Your task to perform on an android device: Search for "apple airpods pro" on costco.com, select the first entry, and add it to the cart. Image 0: 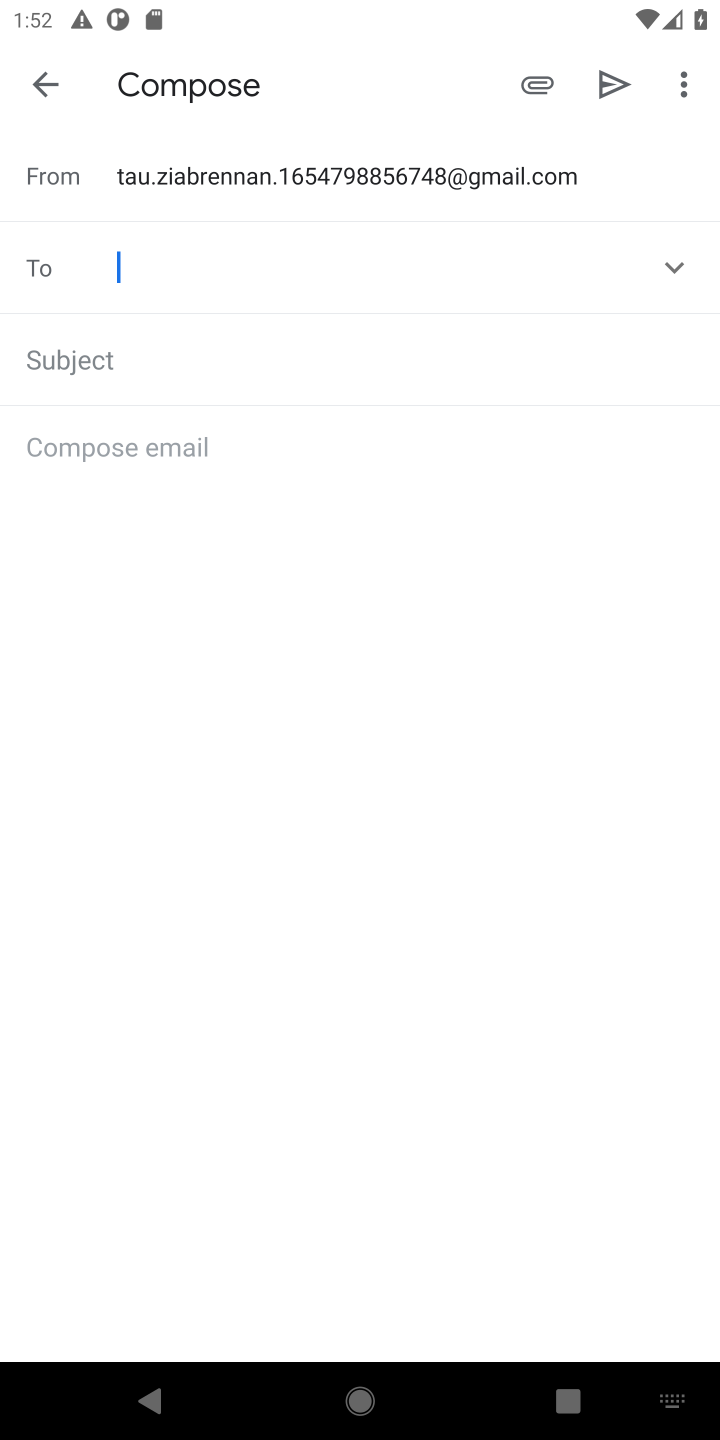
Step 0: press home button
Your task to perform on an android device: Search for "apple airpods pro" on costco.com, select the first entry, and add it to the cart. Image 1: 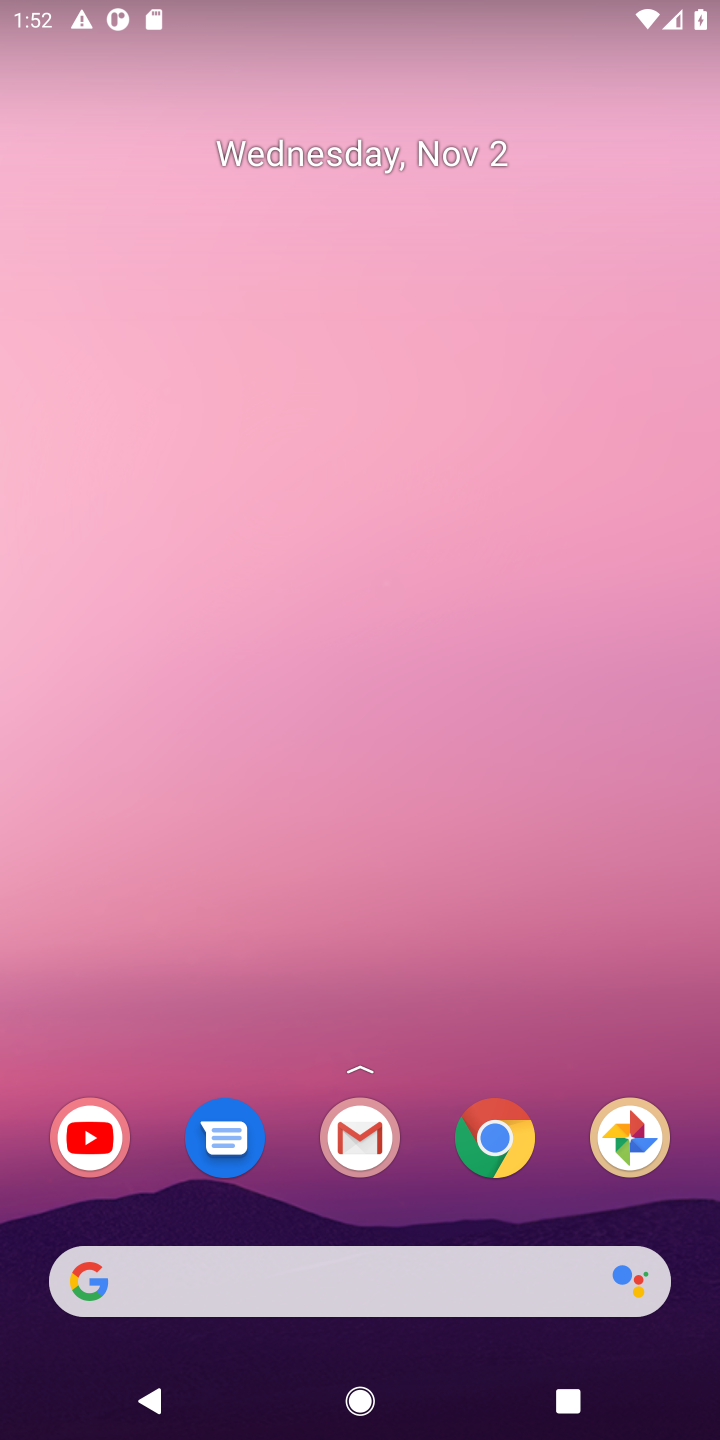
Step 1: click (222, 1274)
Your task to perform on an android device: Search for "apple airpods pro" on costco.com, select the first entry, and add it to the cart. Image 2: 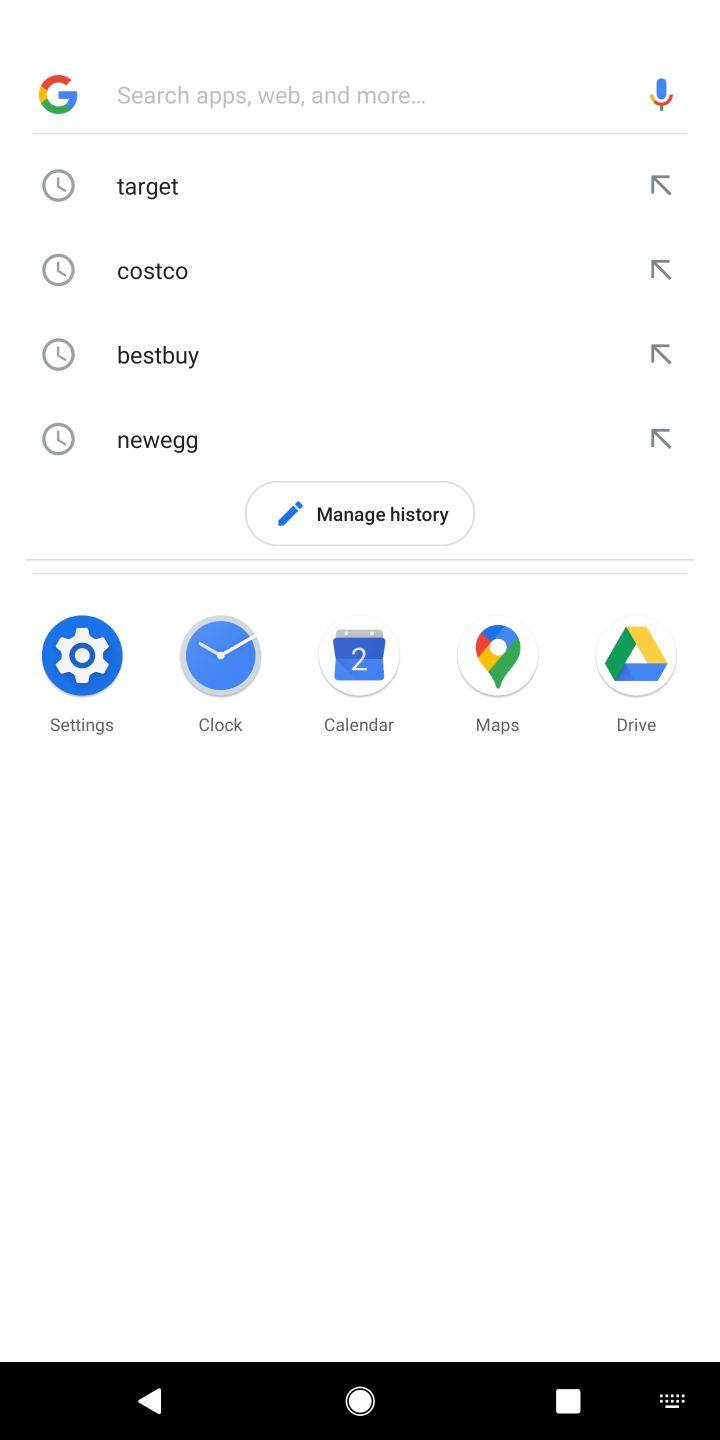
Step 2: type " costco.com"
Your task to perform on an android device: Search for "apple airpods pro" on costco.com, select the first entry, and add it to the cart. Image 3: 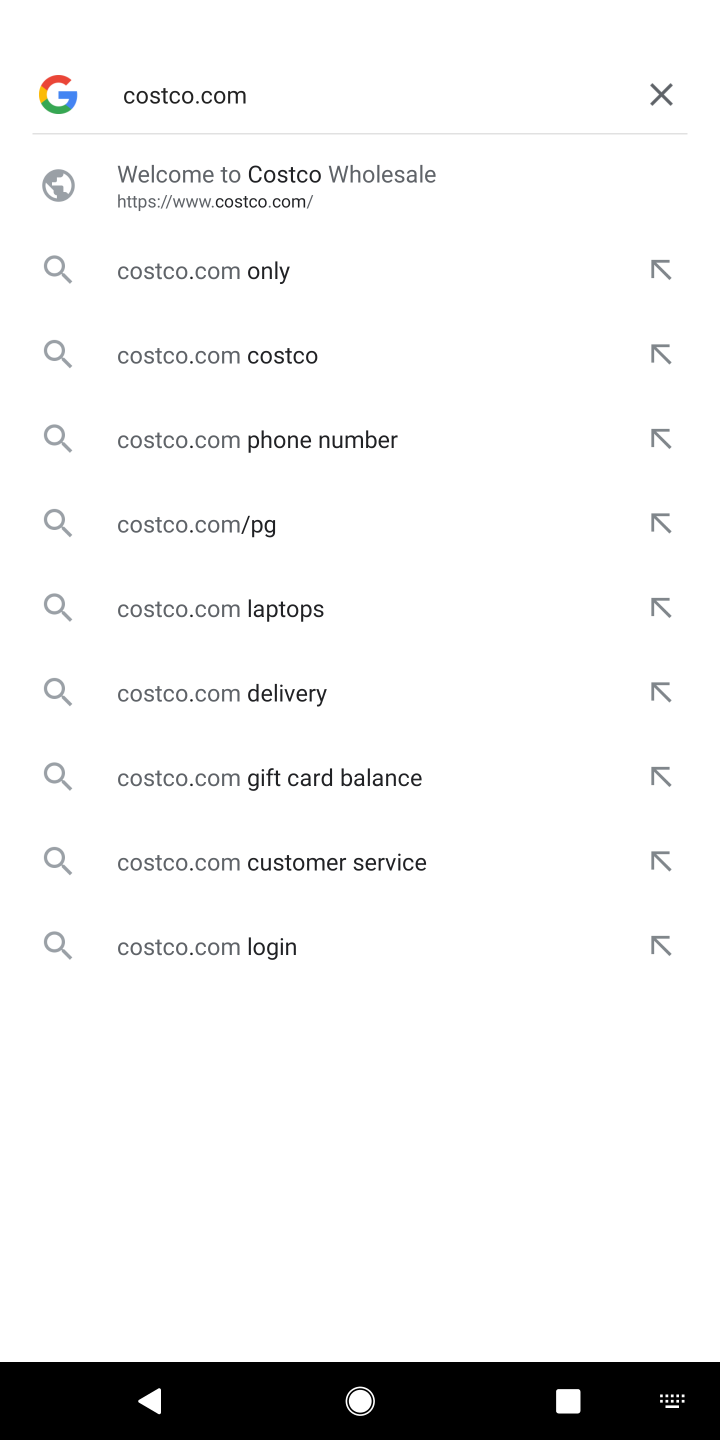
Step 3: press enter
Your task to perform on an android device: Search for "apple airpods pro" on costco.com, select the first entry, and add it to the cart. Image 4: 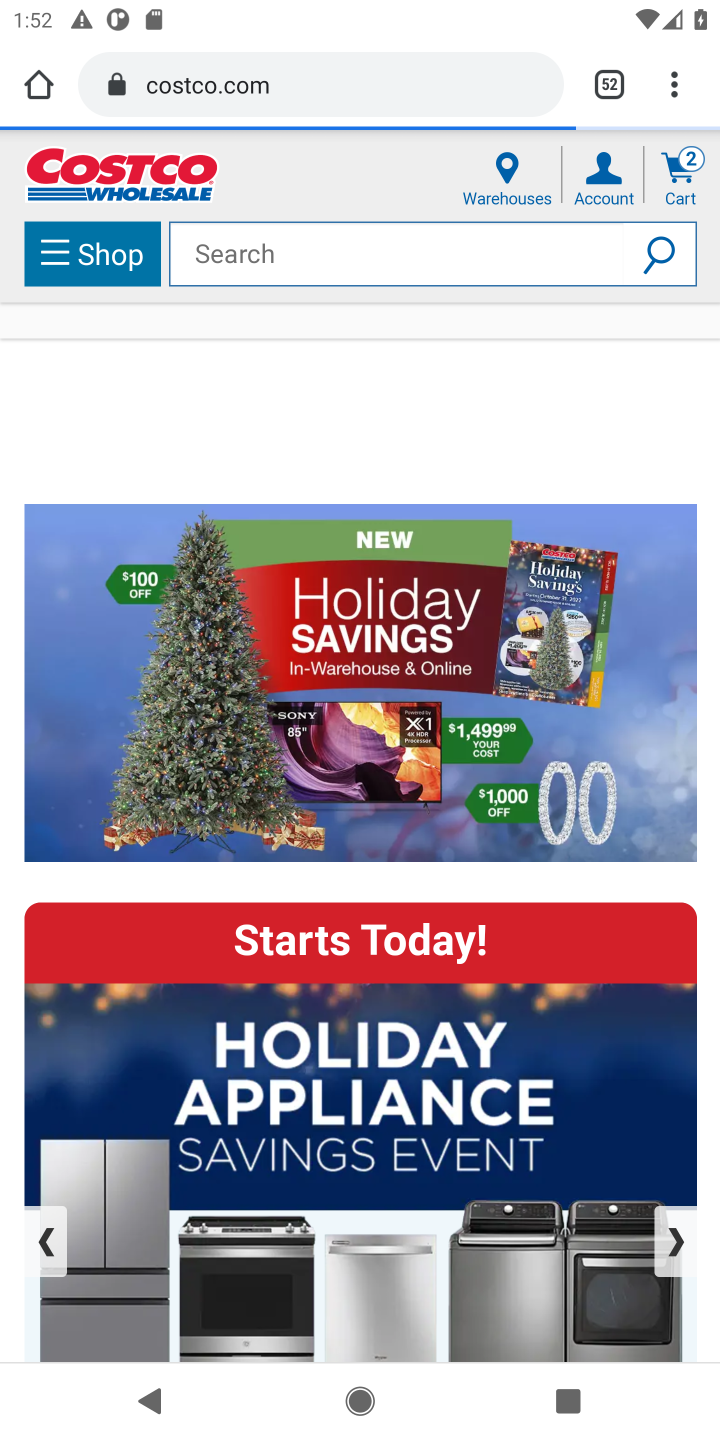
Step 4: click (272, 251)
Your task to perform on an android device: Search for "apple airpods pro" on costco.com, select the first entry, and add it to the cart. Image 5: 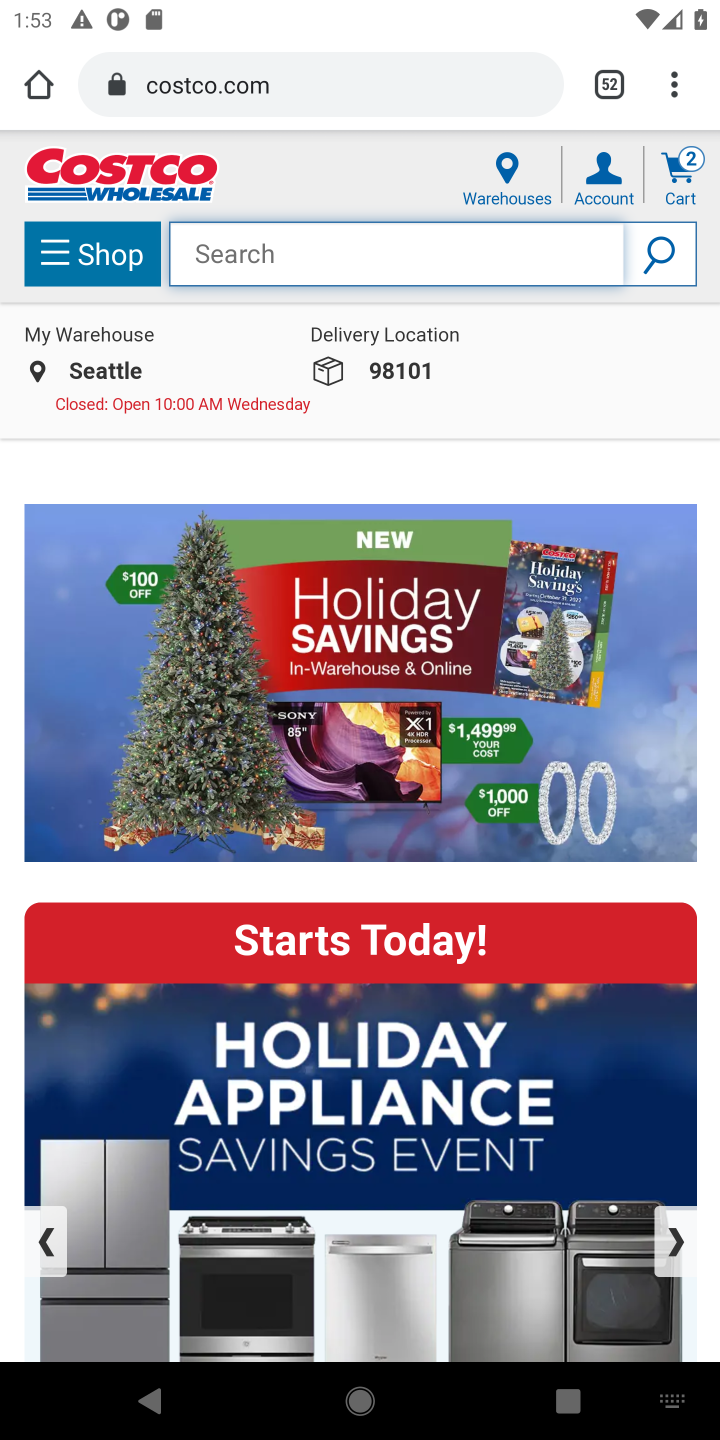
Step 5: press enter
Your task to perform on an android device: Search for "apple airpods pro" on costco.com, select the first entry, and add it to the cart. Image 6: 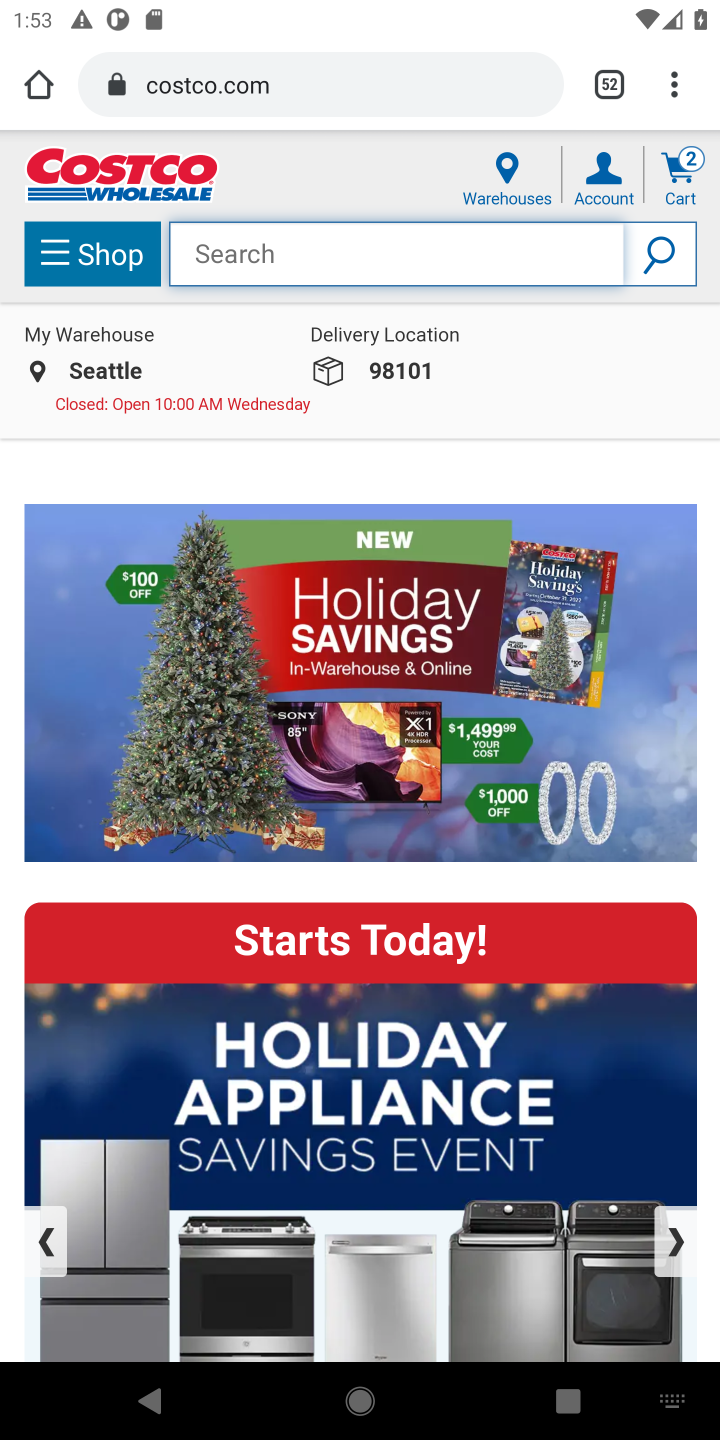
Step 6: type "apple airpods pro"
Your task to perform on an android device: Search for "apple airpods pro" on costco.com, select the first entry, and add it to the cart. Image 7: 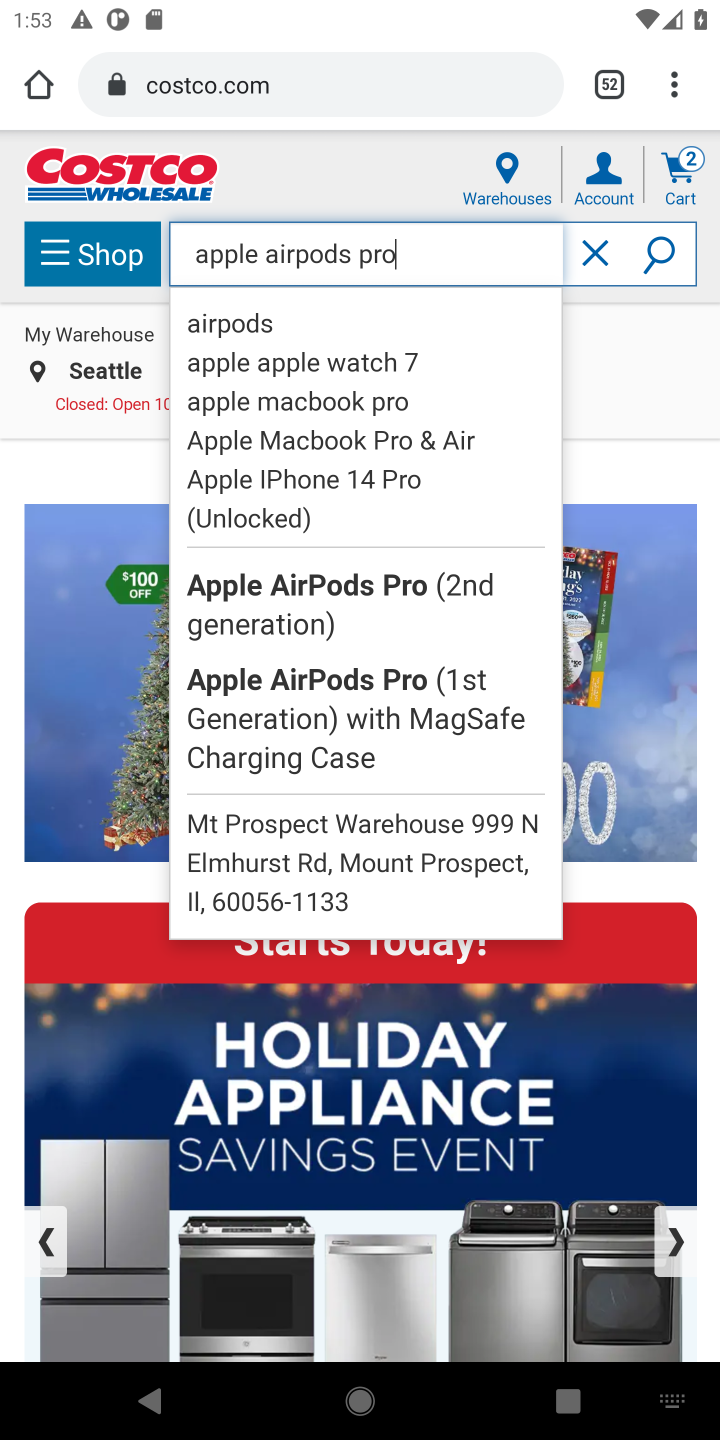
Step 7: click (671, 245)
Your task to perform on an android device: Search for "apple airpods pro" on costco.com, select the first entry, and add it to the cart. Image 8: 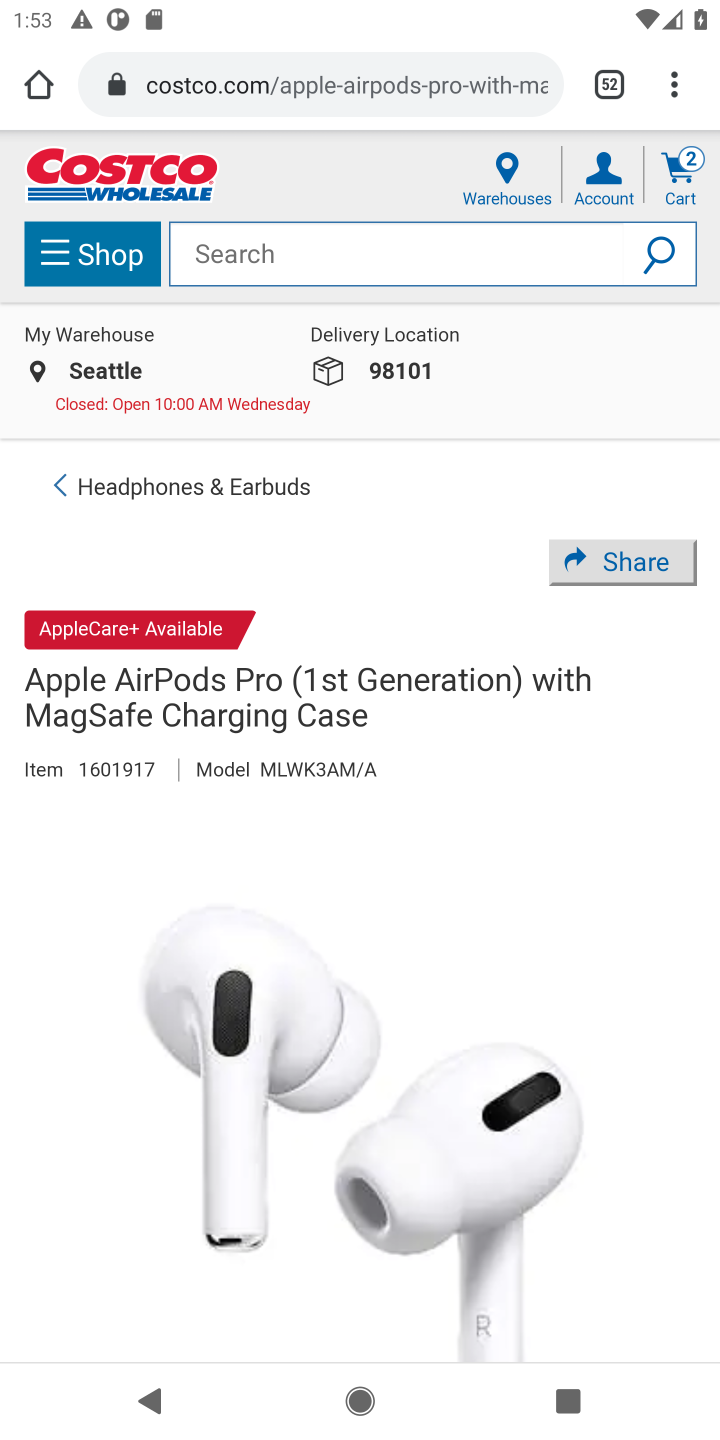
Step 8: drag from (428, 1086) to (405, 658)
Your task to perform on an android device: Search for "apple airpods pro" on costco.com, select the first entry, and add it to the cart. Image 9: 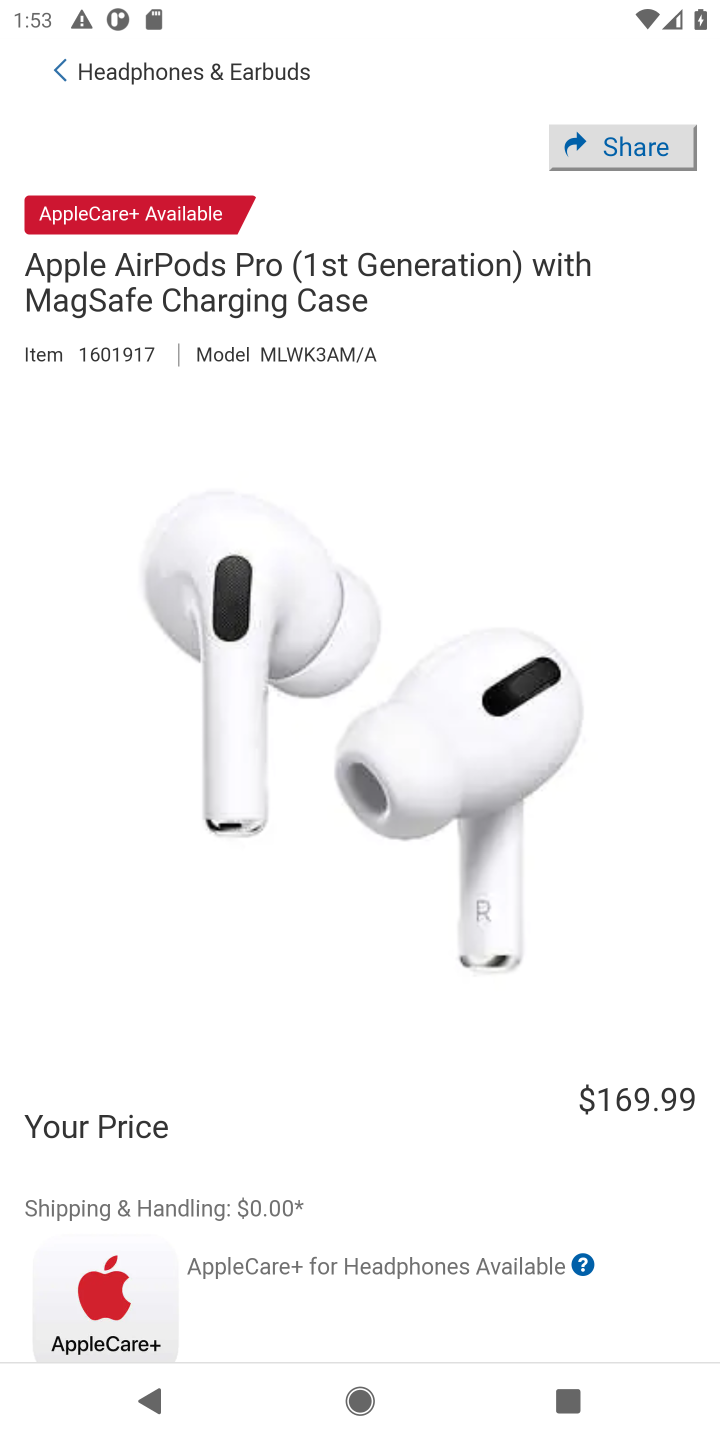
Step 9: drag from (402, 1053) to (400, 657)
Your task to perform on an android device: Search for "apple airpods pro" on costco.com, select the first entry, and add it to the cart. Image 10: 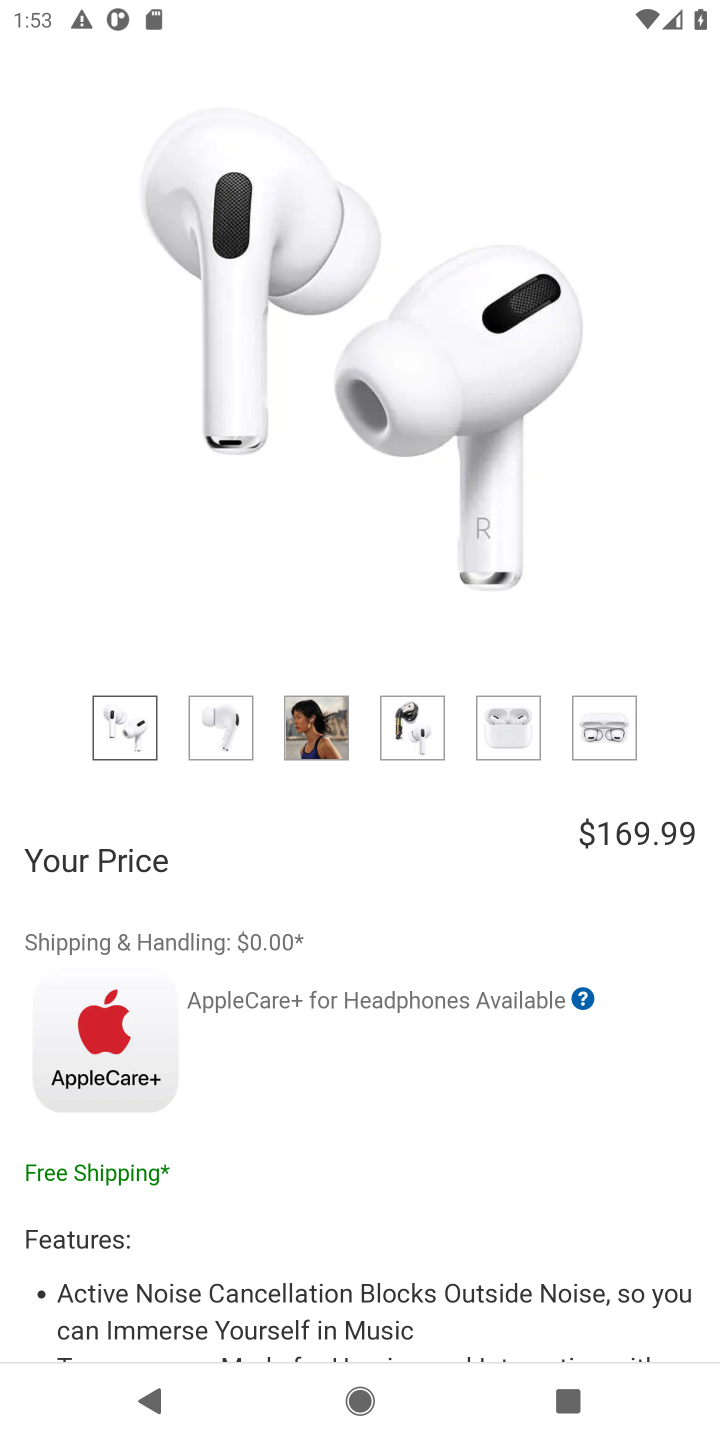
Step 10: drag from (440, 1126) to (468, 618)
Your task to perform on an android device: Search for "apple airpods pro" on costco.com, select the first entry, and add it to the cart. Image 11: 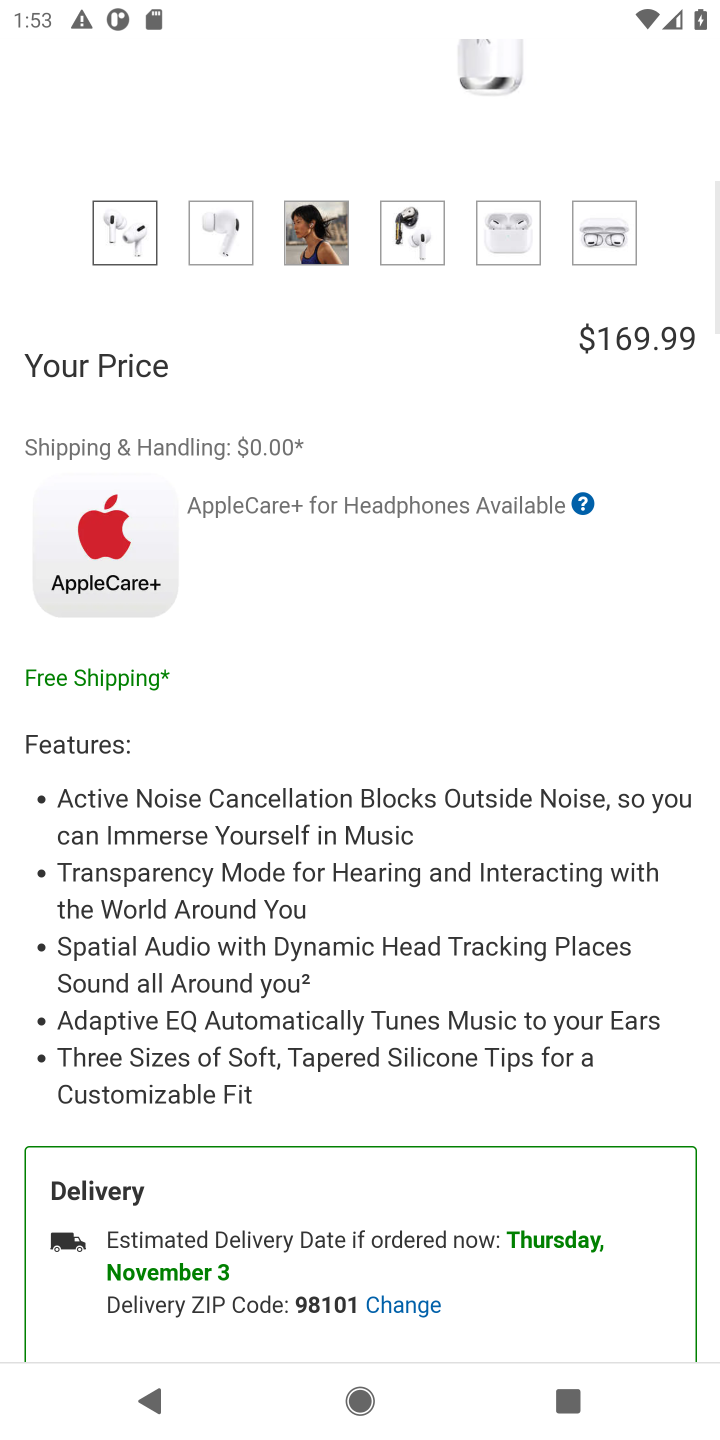
Step 11: drag from (422, 960) to (465, 510)
Your task to perform on an android device: Search for "apple airpods pro" on costco.com, select the first entry, and add it to the cart. Image 12: 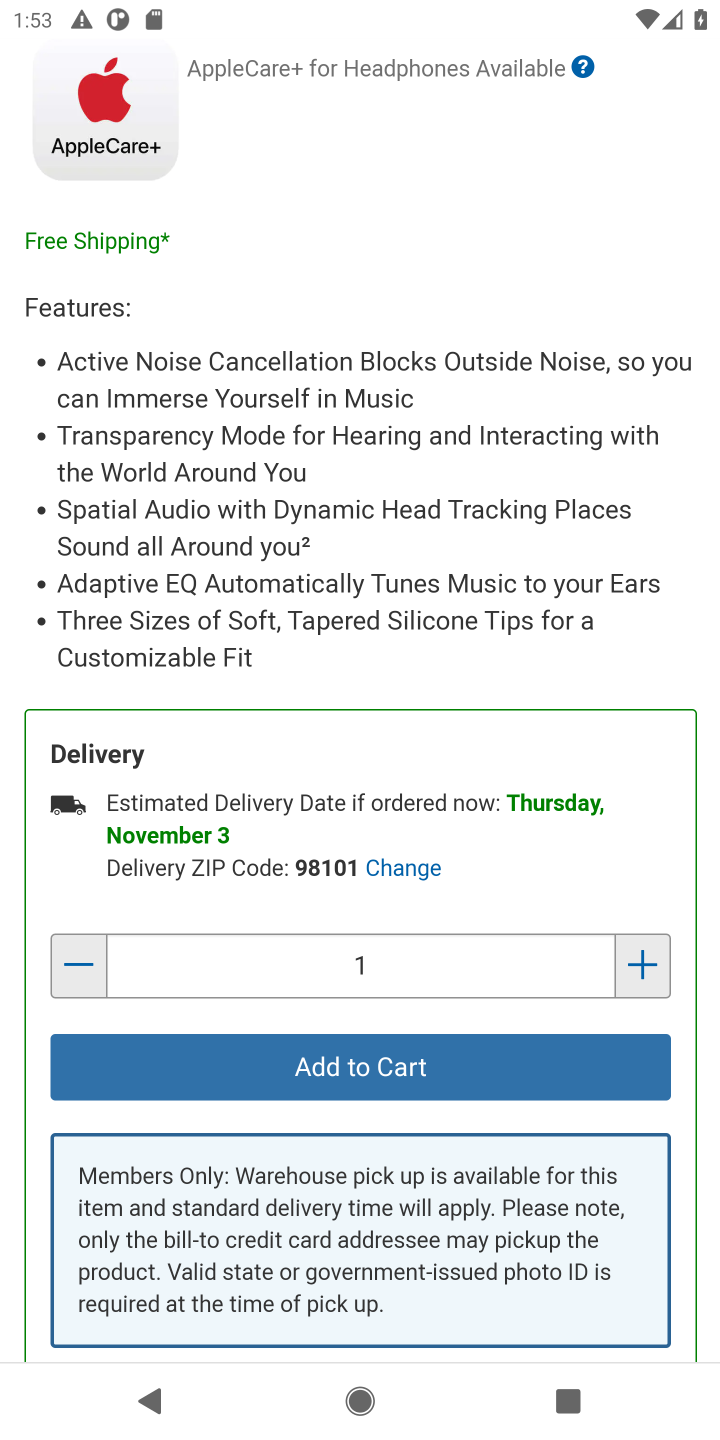
Step 12: click (365, 1063)
Your task to perform on an android device: Search for "apple airpods pro" on costco.com, select the first entry, and add it to the cart. Image 13: 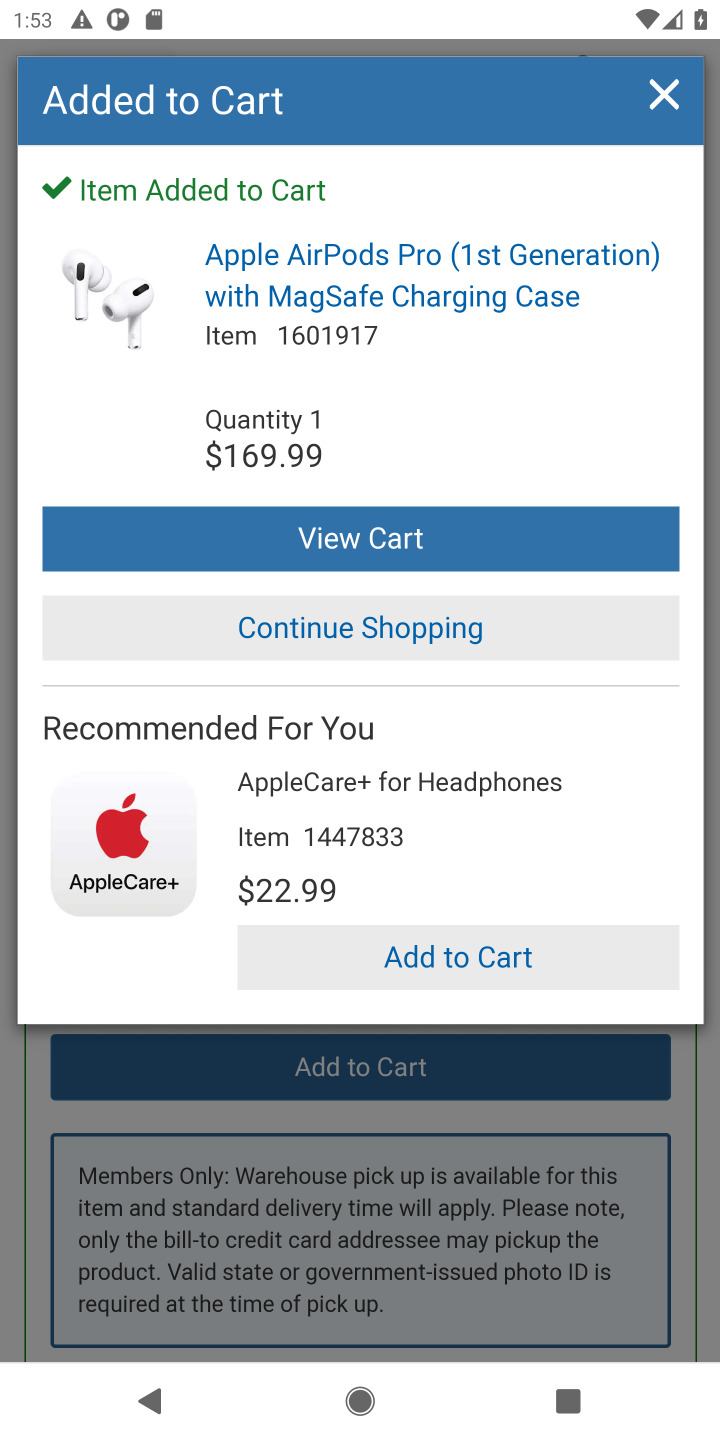
Step 13: task complete